Your task to perform on an android device: create a new album in the google photos Image 0: 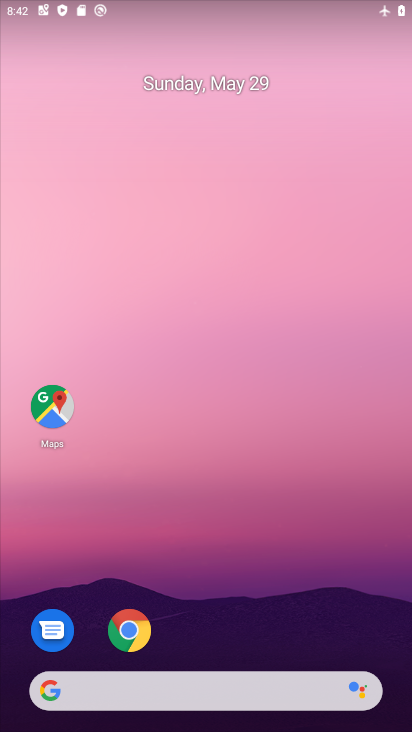
Step 0: drag from (182, 650) to (188, 244)
Your task to perform on an android device: create a new album in the google photos Image 1: 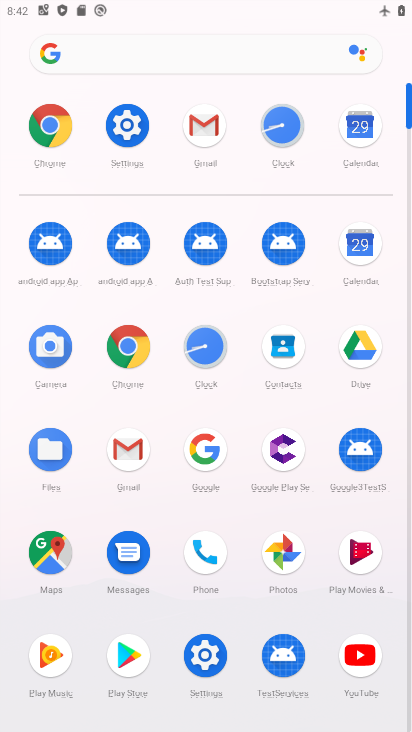
Step 1: click (292, 567)
Your task to perform on an android device: create a new album in the google photos Image 2: 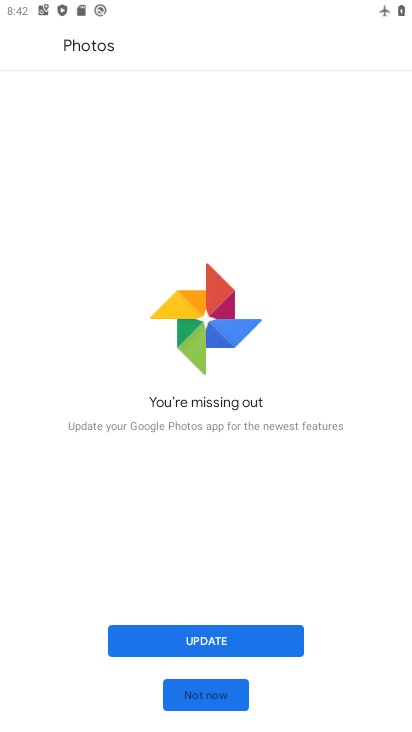
Step 2: click (186, 687)
Your task to perform on an android device: create a new album in the google photos Image 3: 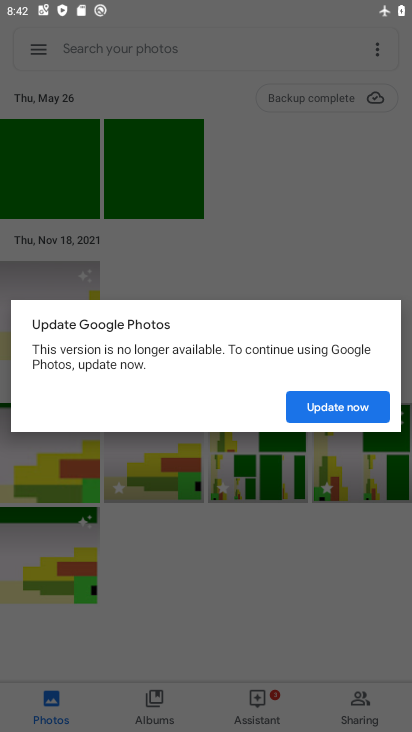
Step 3: click (297, 492)
Your task to perform on an android device: create a new album in the google photos Image 4: 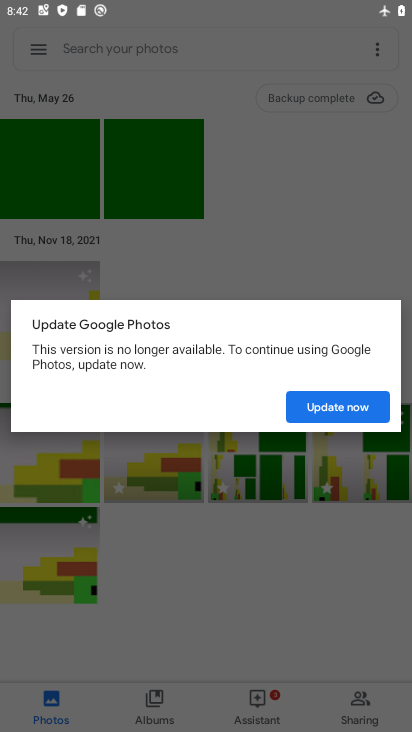
Step 4: click (370, 414)
Your task to perform on an android device: create a new album in the google photos Image 5: 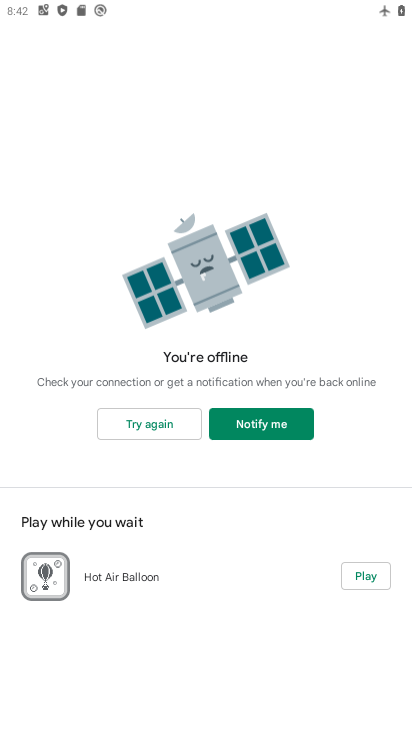
Step 5: click (170, 420)
Your task to perform on an android device: create a new album in the google photos Image 6: 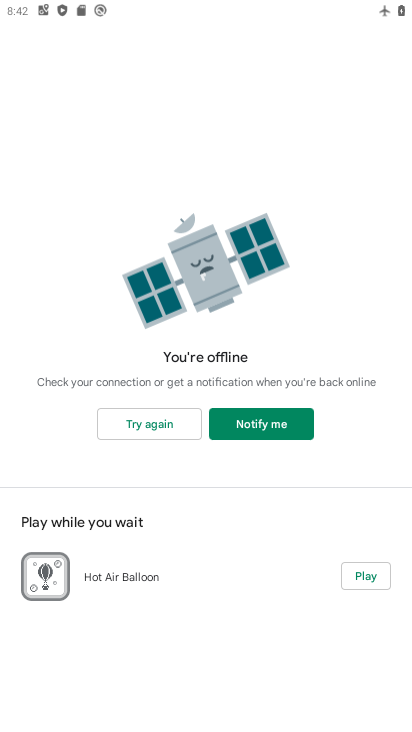
Step 6: press back button
Your task to perform on an android device: create a new album in the google photos Image 7: 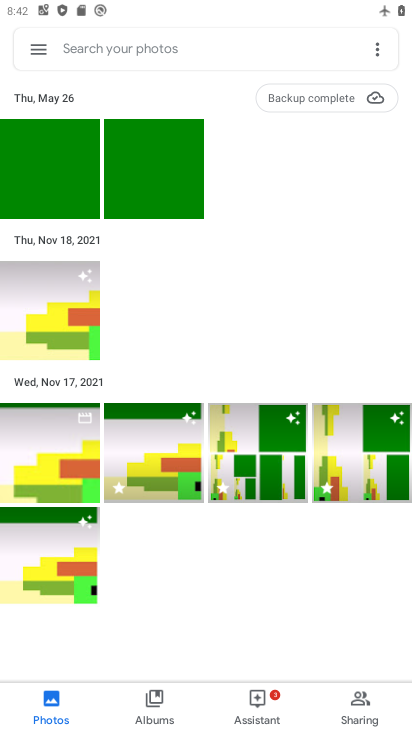
Step 7: click (56, 212)
Your task to perform on an android device: create a new album in the google photos Image 8: 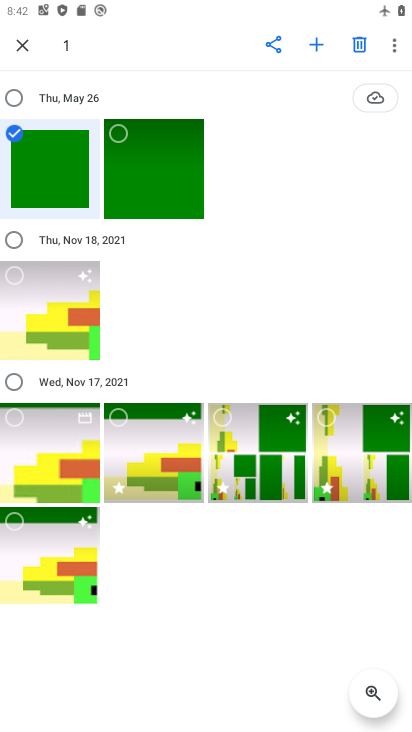
Step 8: click (317, 41)
Your task to perform on an android device: create a new album in the google photos Image 9: 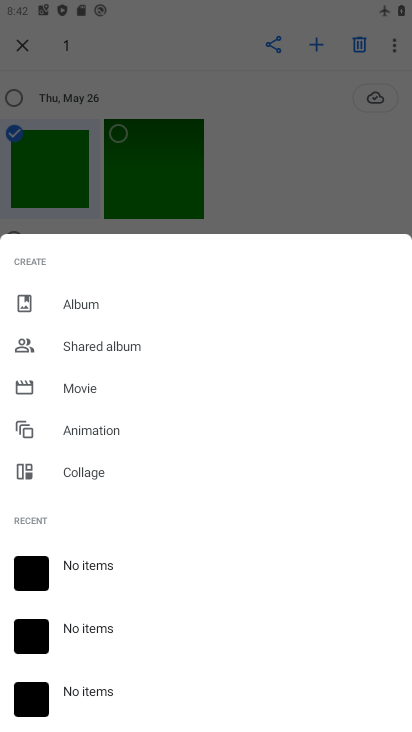
Step 9: click (90, 309)
Your task to perform on an android device: create a new album in the google photos Image 10: 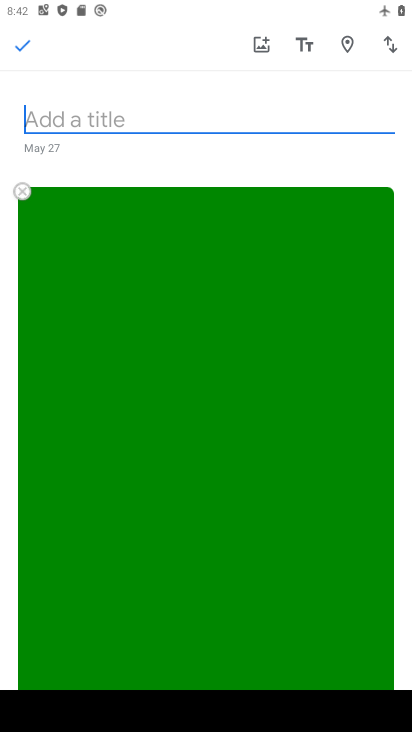
Step 10: type "jikl"
Your task to perform on an android device: create a new album in the google photos Image 11: 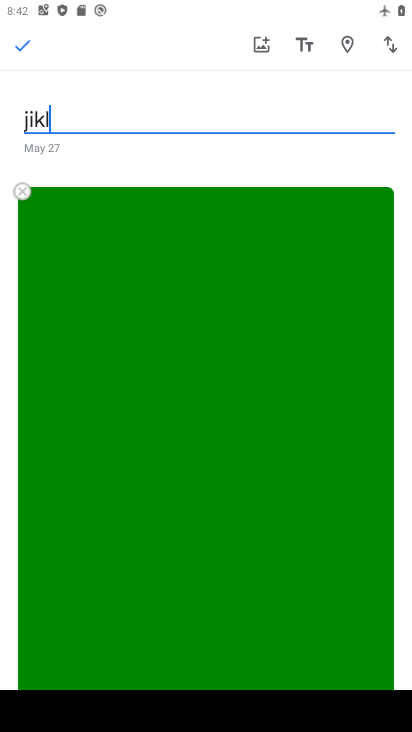
Step 11: click (21, 46)
Your task to perform on an android device: create a new album in the google photos Image 12: 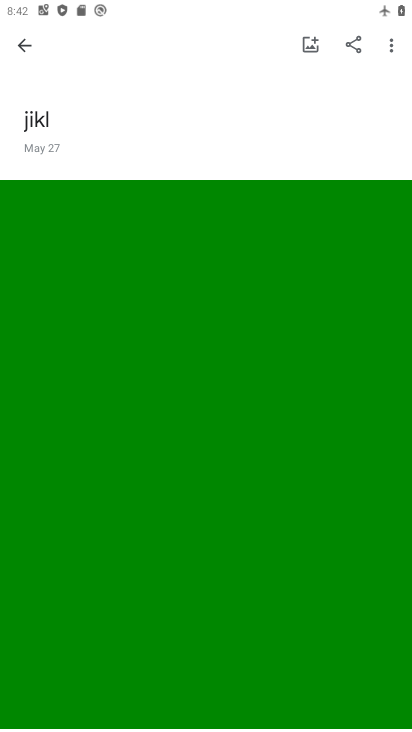
Step 12: task complete